Your task to perform on an android device: Open wifi settings Image 0: 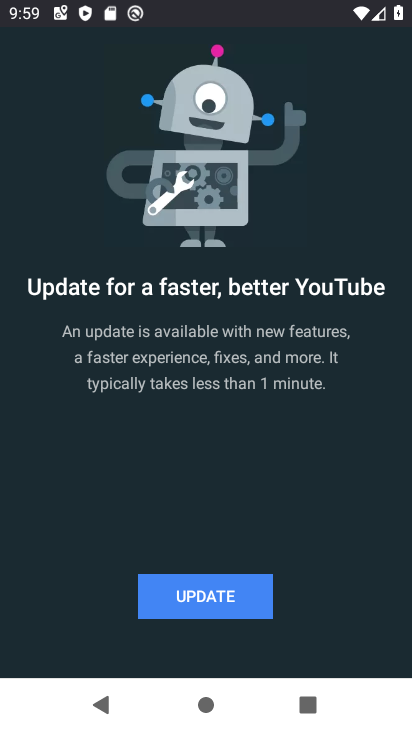
Step 0: press home button
Your task to perform on an android device: Open wifi settings Image 1: 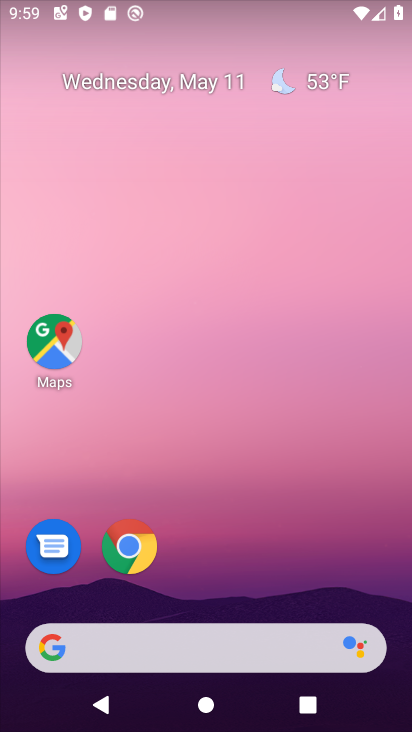
Step 1: drag from (383, 619) to (342, 86)
Your task to perform on an android device: Open wifi settings Image 2: 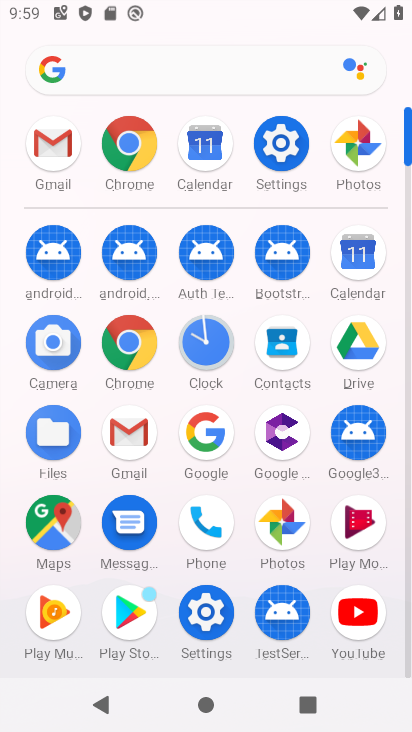
Step 2: click (214, 607)
Your task to perform on an android device: Open wifi settings Image 3: 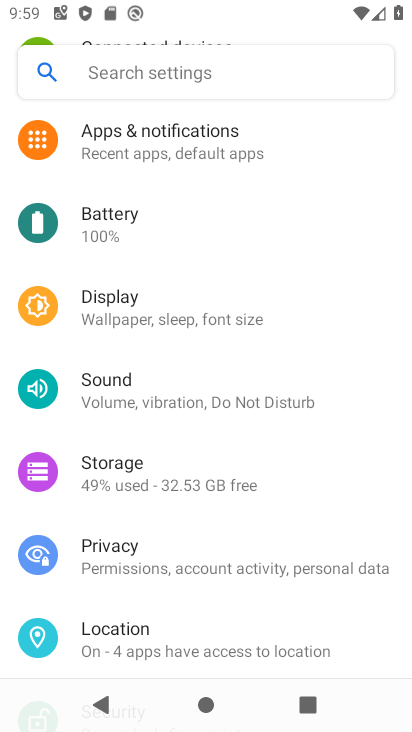
Step 3: drag from (183, 187) to (238, 710)
Your task to perform on an android device: Open wifi settings Image 4: 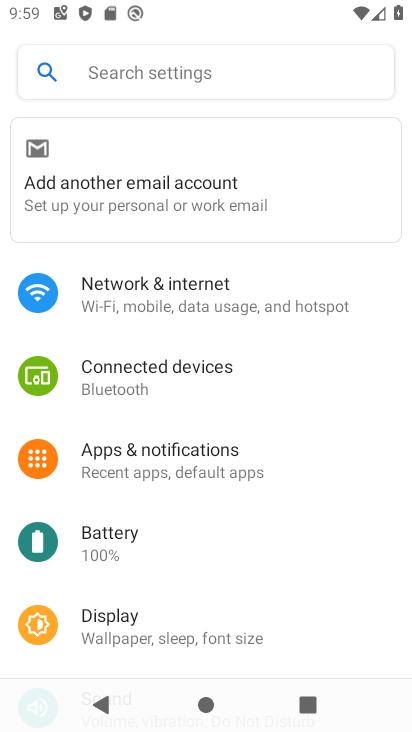
Step 4: click (160, 318)
Your task to perform on an android device: Open wifi settings Image 5: 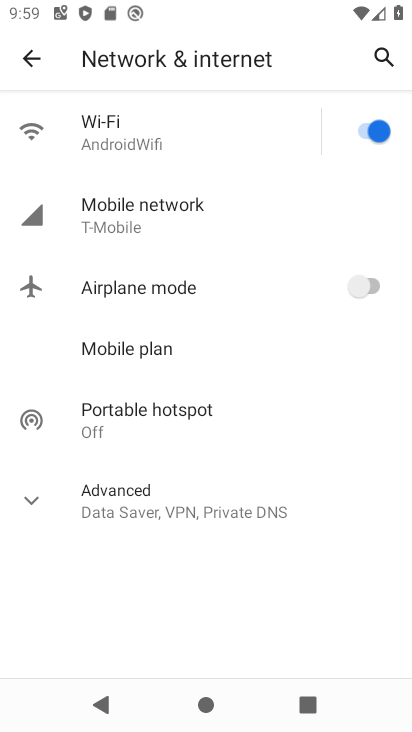
Step 5: click (189, 148)
Your task to perform on an android device: Open wifi settings Image 6: 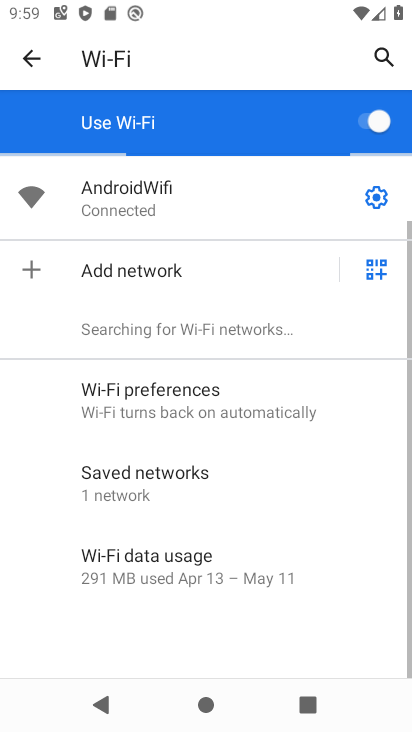
Step 6: task complete